Your task to perform on an android device: turn on wifi Image 0: 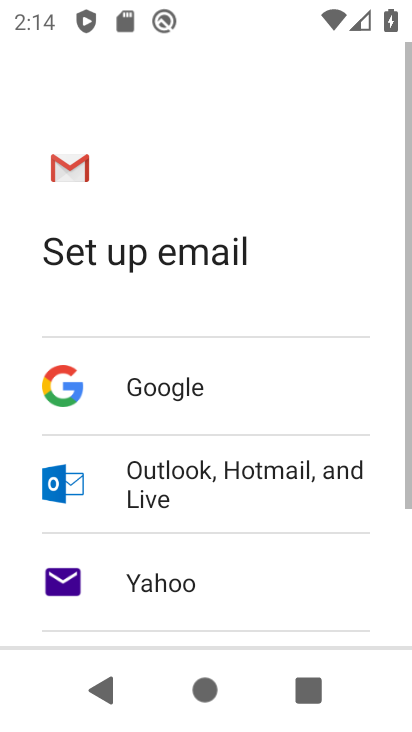
Step 0: press back button
Your task to perform on an android device: turn on wifi Image 1: 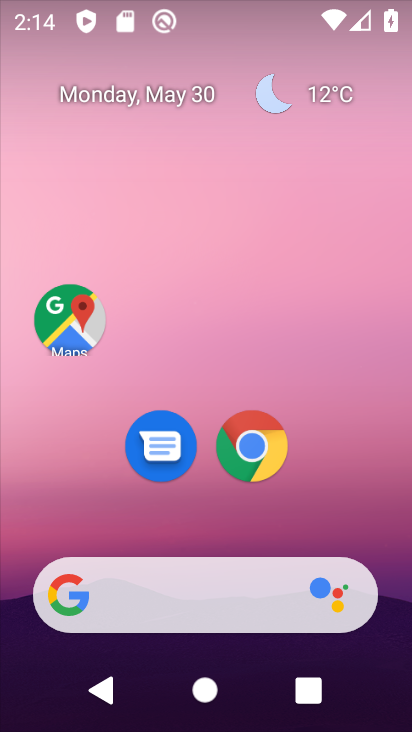
Step 1: drag from (318, 519) to (271, 93)
Your task to perform on an android device: turn on wifi Image 2: 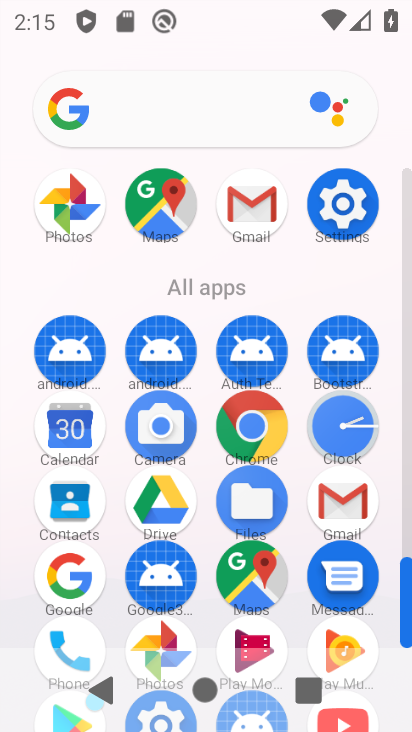
Step 2: click (345, 205)
Your task to perform on an android device: turn on wifi Image 3: 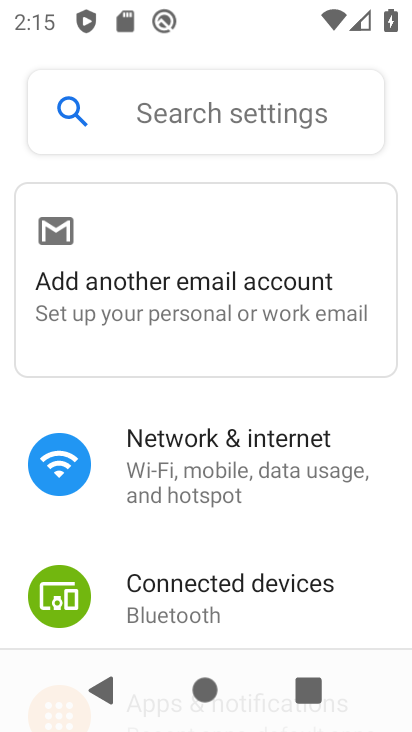
Step 3: click (197, 449)
Your task to perform on an android device: turn on wifi Image 4: 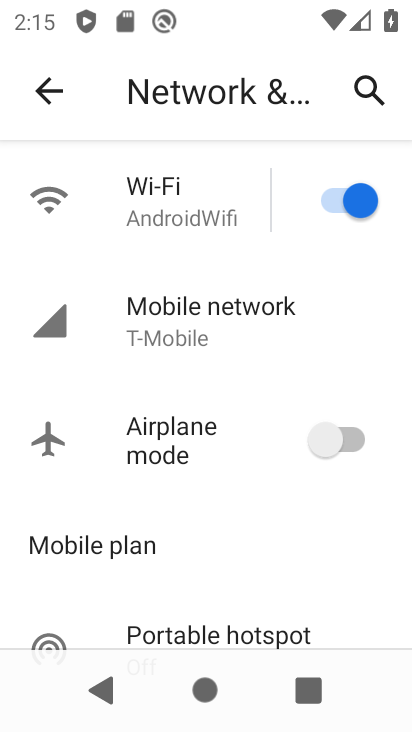
Step 4: task complete